Your task to perform on an android device: change the clock display to analog Image 0: 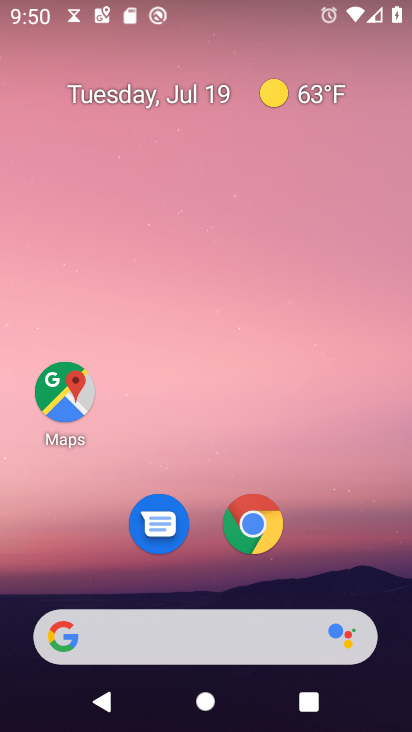
Step 0: press home button
Your task to perform on an android device: change the clock display to analog Image 1: 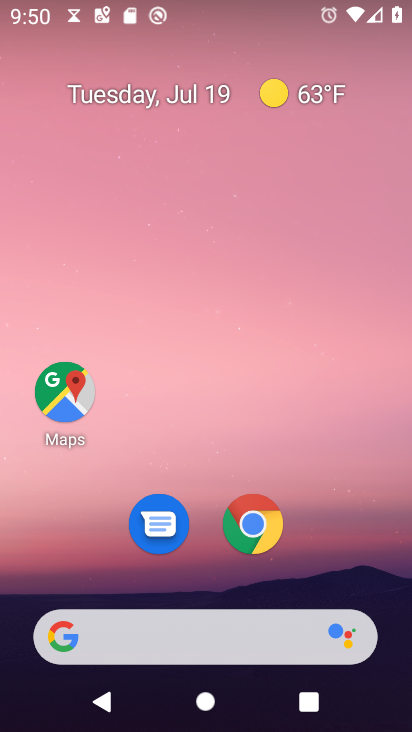
Step 1: drag from (235, 637) to (339, 11)
Your task to perform on an android device: change the clock display to analog Image 2: 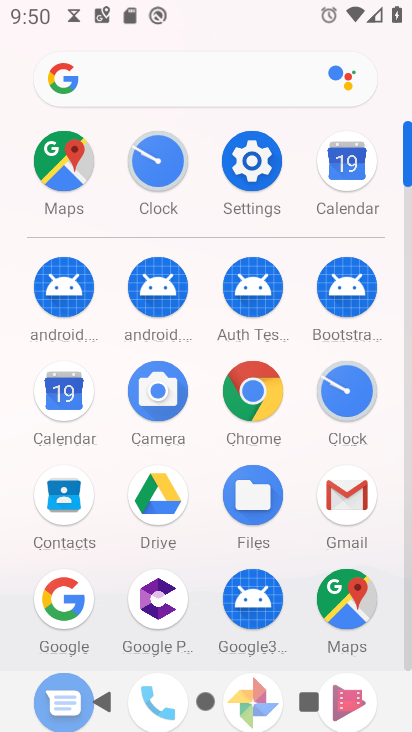
Step 2: click (342, 385)
Your task to perform on an android device: change the clock display to analog Image 3: 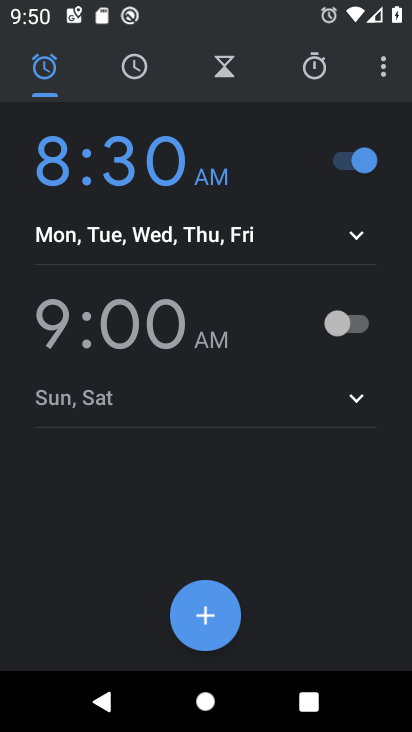
Step 3: click (378, 68)
Your task to perform on an android device: change the clock display to analog Image 4: 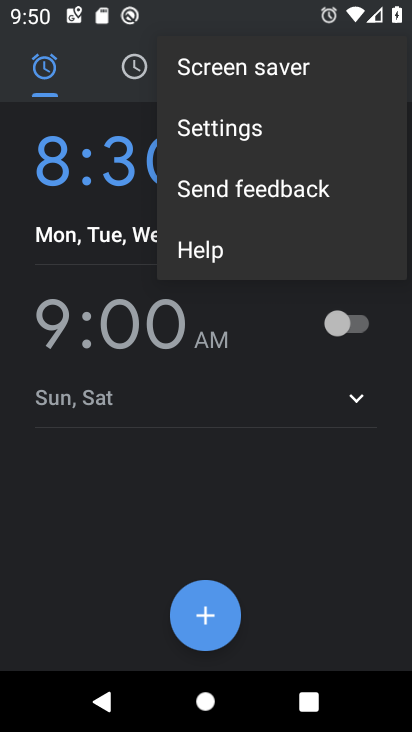
Step 4: click (244, 122)
Your task to perform on an android device: change the clock display to analog Image 5: 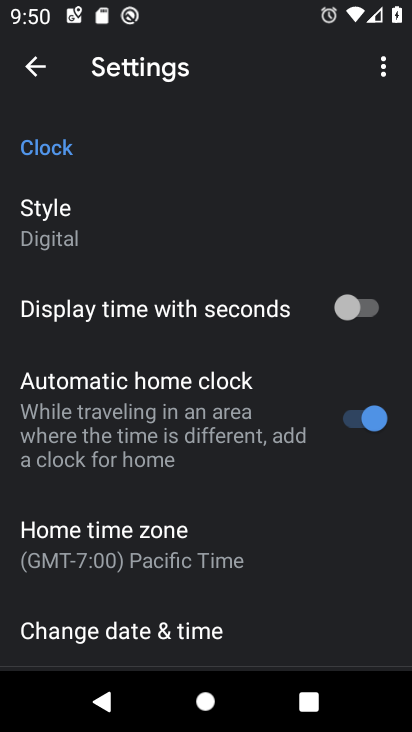
Step 5: click (68, 234)
Your task to perform on an android device: change the clock display to analog Image 6: 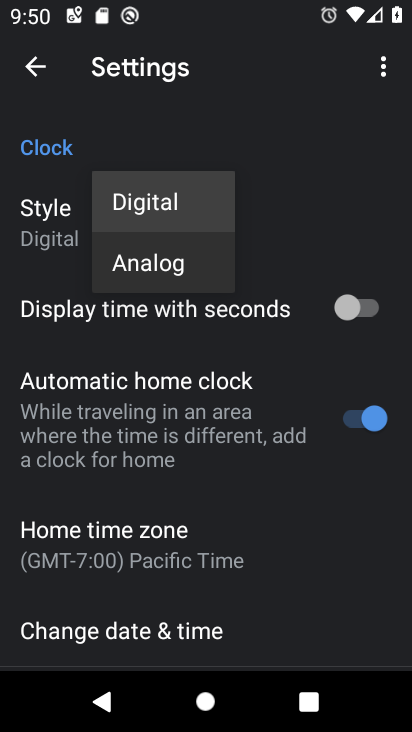
Step 6: click (152, 253)
Your task to perform on an android device: change the clock display to analog Image 7: 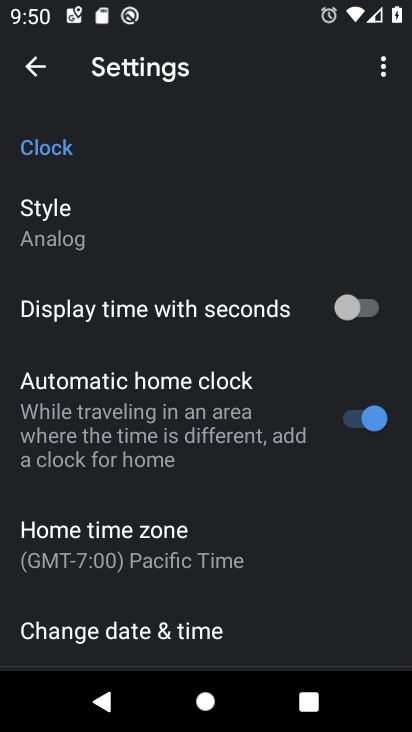
Step 7: task complete